Your task to perform on an android device: see sites visited before in the chrome app Image 0: 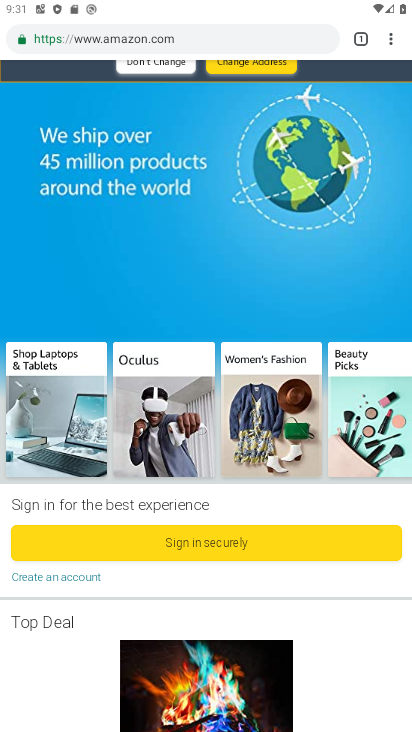
Step 0: press home button
Your task to perform on an android device: see sites visited before in the chrome app Image 1: 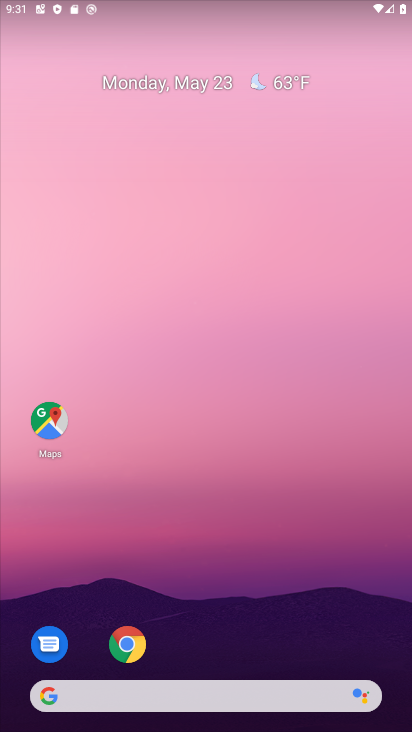
Step 1: click (128, 640)
Your task to perform on an android device: see sites visited before in the chrome app Image 2: 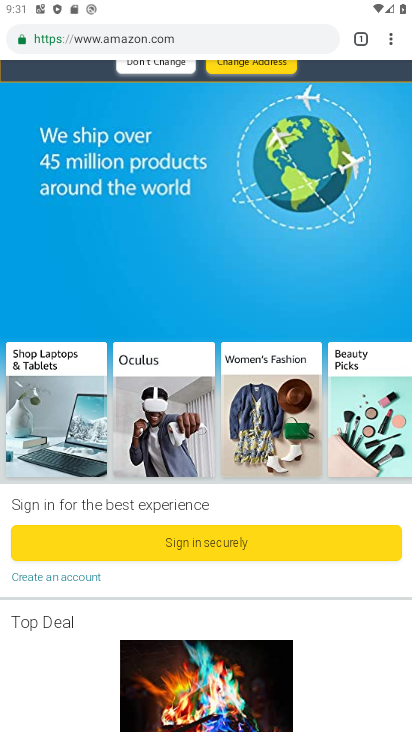
Step 2: click (393, 40)
Your task to perform on an android device: see sites visited before in the chrome app Image 3: 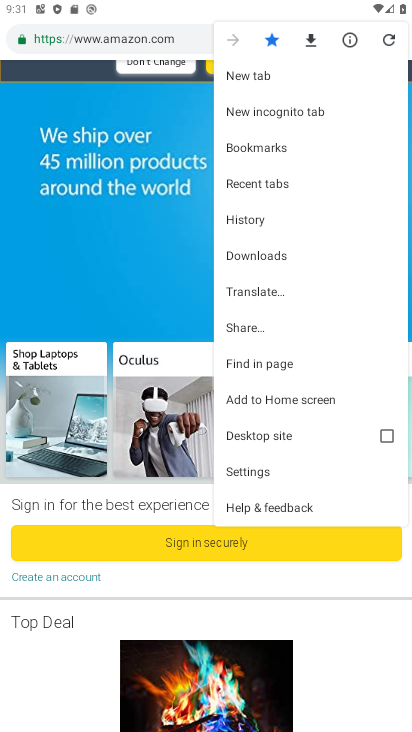
Step 3: click (286, 217)
Your task to perform on an android device: see sites visited before in the chrome app Image 4: 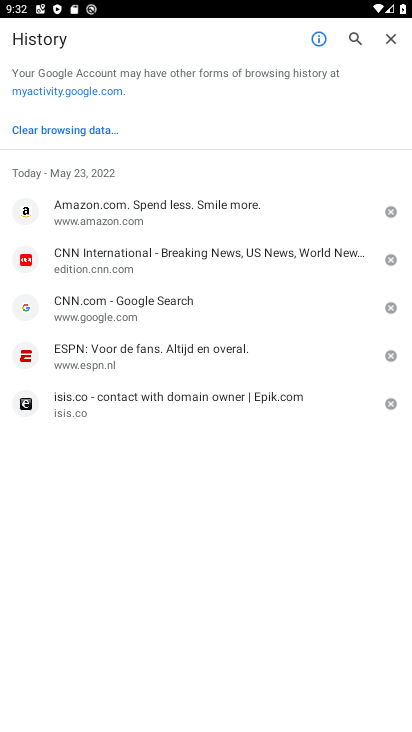
Step 4: task complete